Your task to perform on an android device: Open Google Chrome Image 0: 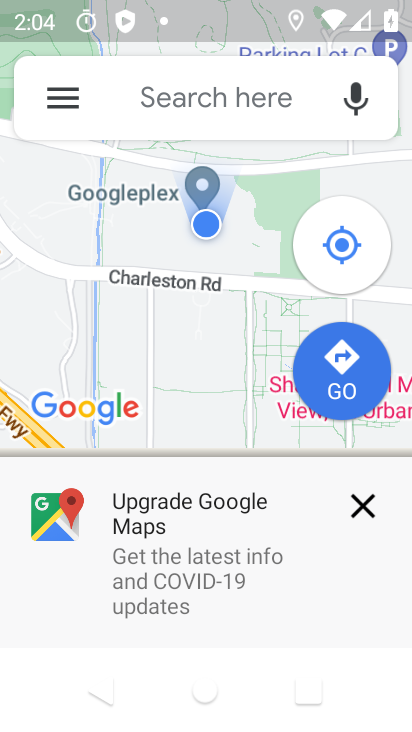
Step 0: press home button
Your task to perform on an android device: Open Google Chrome Image 1: 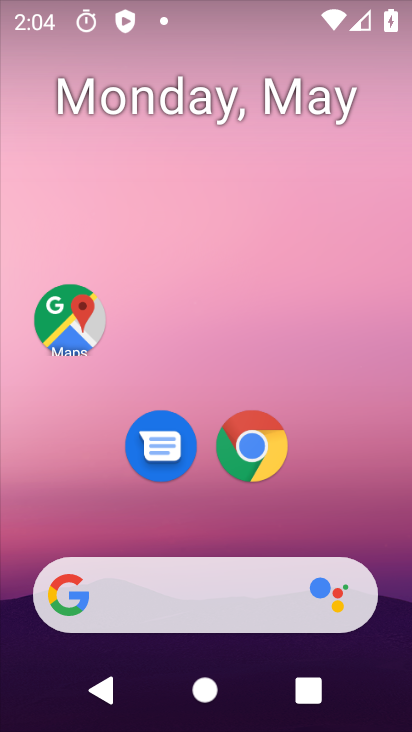
Step 1: click (244, 480)
Your task to perform on an android device: Open Google Chrome Image 2: 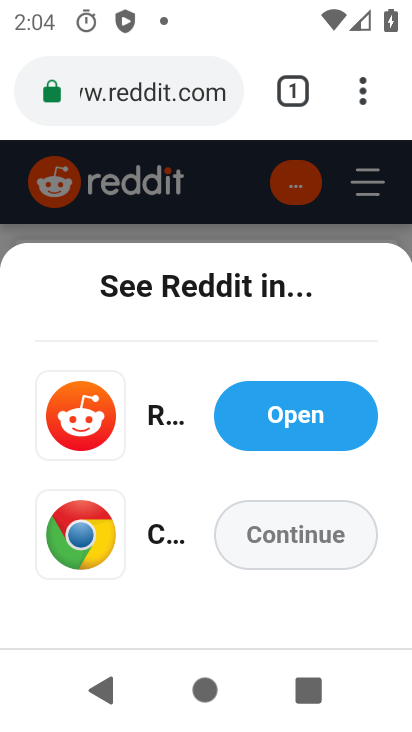
Step 2: task complete